Your task to perform on an android device: Go to CNN.com Image 0: 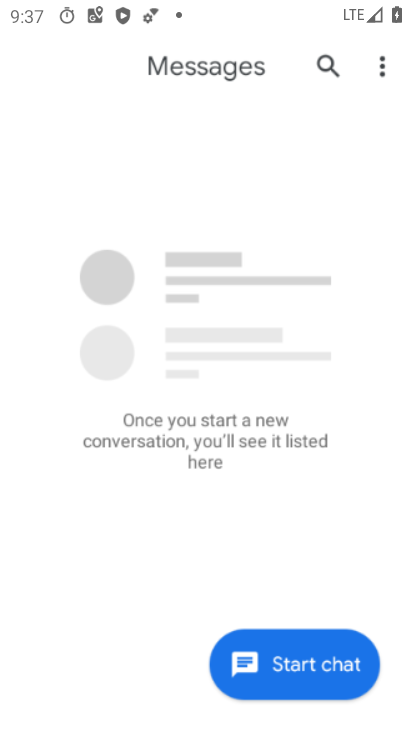
Step 0: drag from (178, 582) to (288, 57)
Your task to perform on an android device: Go to CNN.com Image 1: 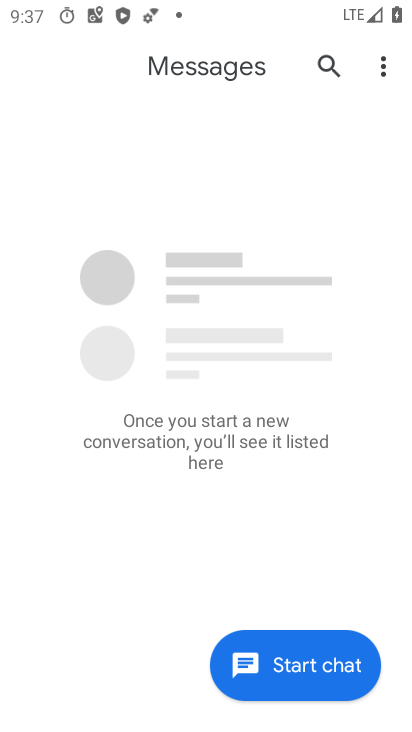
Step 1: press home button
Your task to perform on an android device: Go to CNN.com Image 2: 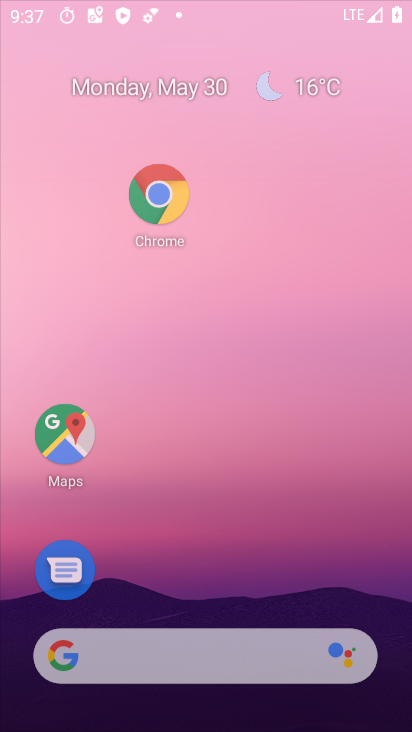
Step 2: drag from (102, 550) to (286, 0)
Your task to perform on an android device: Go to CNN.com Image 3: 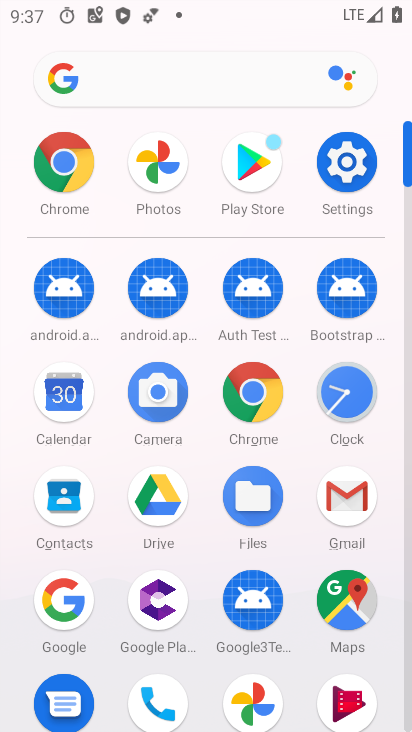
Step 3: click (113, 75)
Your task to perform on an android device: Go to CNN.com Image 4: 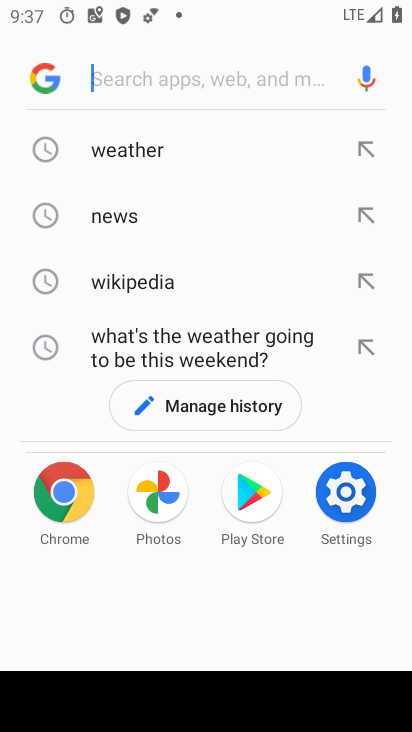
Step 4: type "cnn.com"
Your task to perform on an android device: Go to CNN.com Image 5: 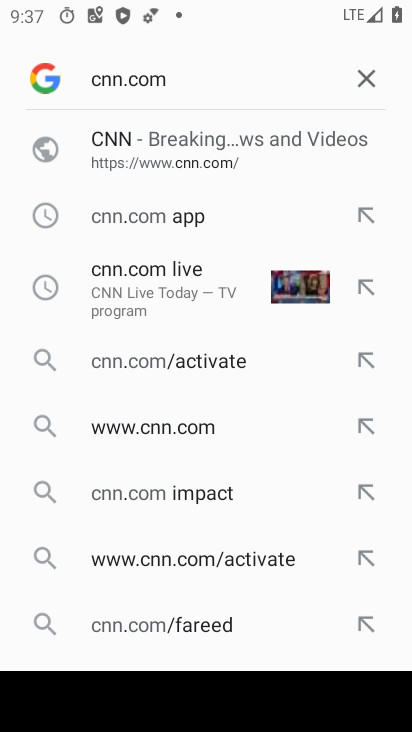
Step 5: click (151, 158)
Your task to perform on an android device: Go to CNN.com Image 6: 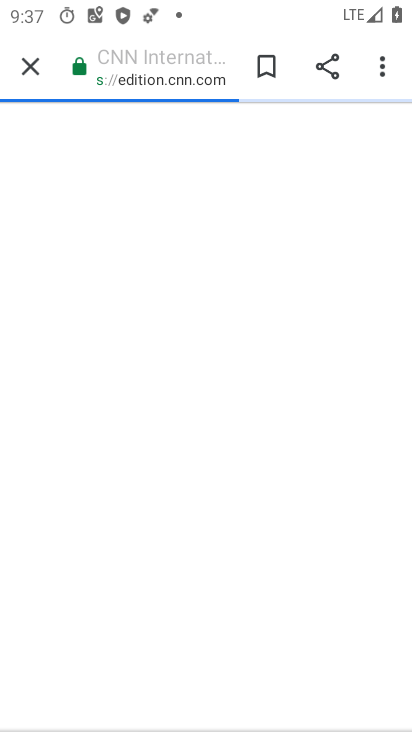
Step 6: task complete